Your task to perform on an android device: Go to Reddit.com Image 0: 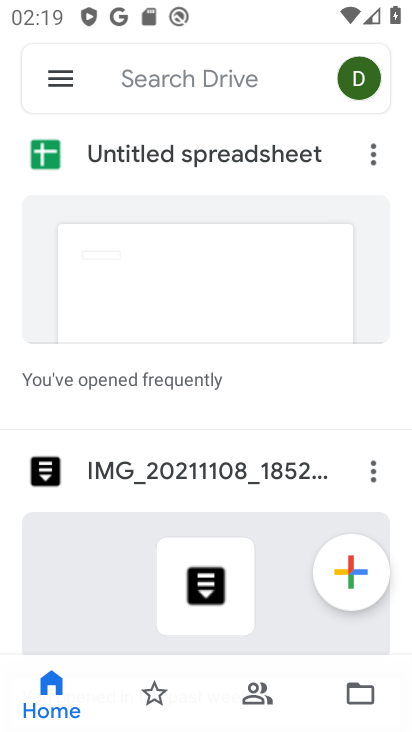
Step 0: press home button
Your task to perform on an android device: Go to Reddit.com Image 1: 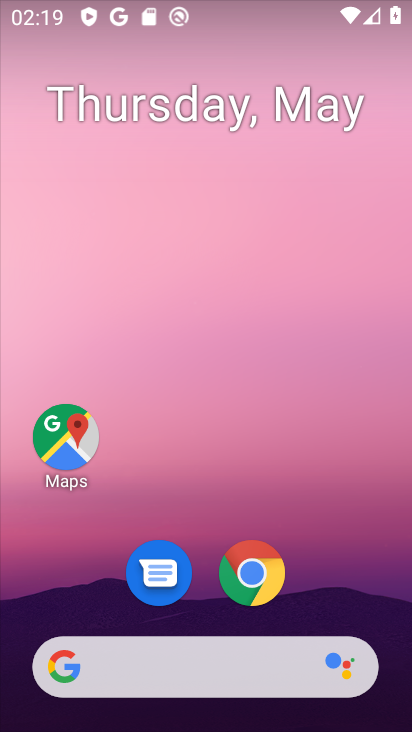
Step 1: drag from (317, 561) to (343, 244)
Your task to perform on an android device: Go to Reddit.com Image 2: 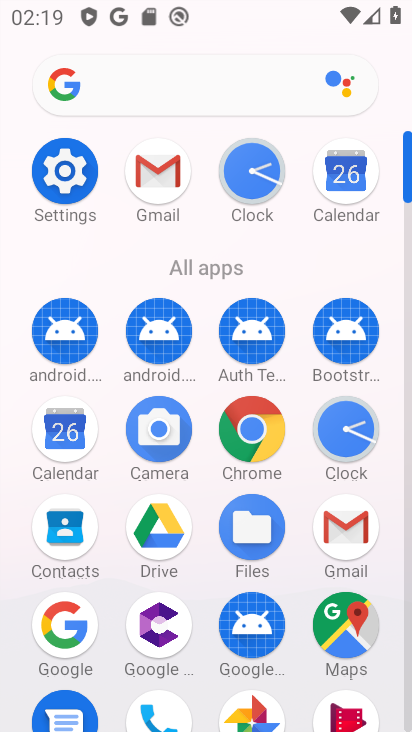
Step 2: click (242, 475)
Your task to perform on an android device: Go to Reddit.com Image 3: 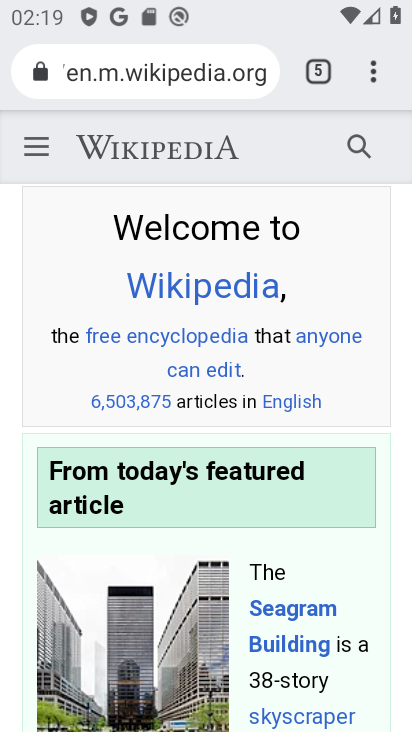
Step 3: click (310, 68)
Your task to perform on an android device: Go to Reddit.com Image 4: 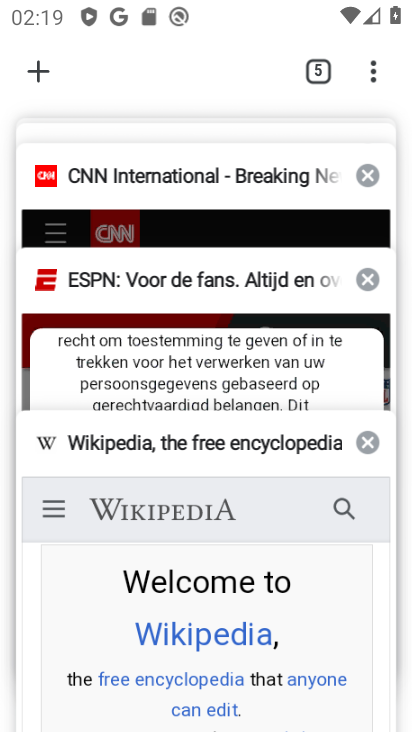
Step 4: drag from (191, 182) to (145, 594)
Your task to perform on an android device: Go to Reddit.com Image 5: 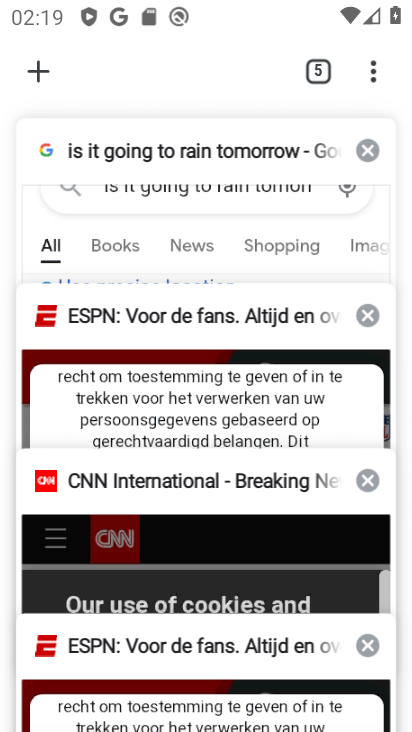
Step 5: drag from (176, 163) to (150, 625)
Your task to perform on an android device: Go to Reddit.com Image 6: 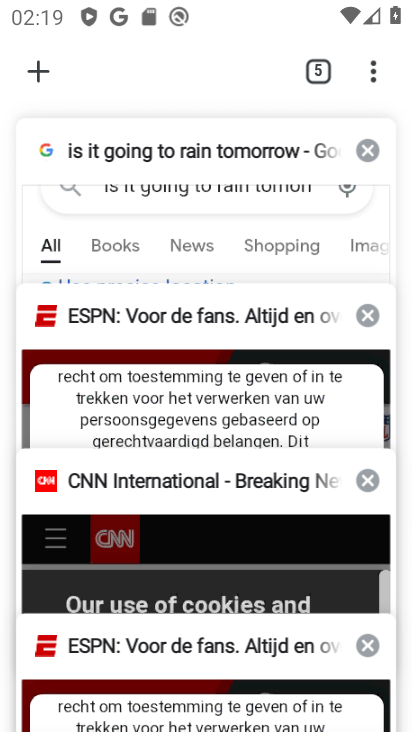
Step 6: drag from (158, 140) to (138, 540)
Your task to perform on an android device: Go to Reddit.com Image 7: 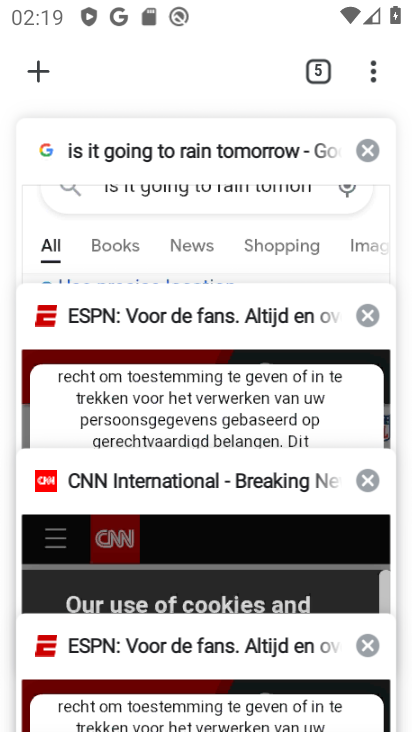
Step 7: click (44, 65)
Your task to perform on an android device: Go to Reddit.com Image 8: 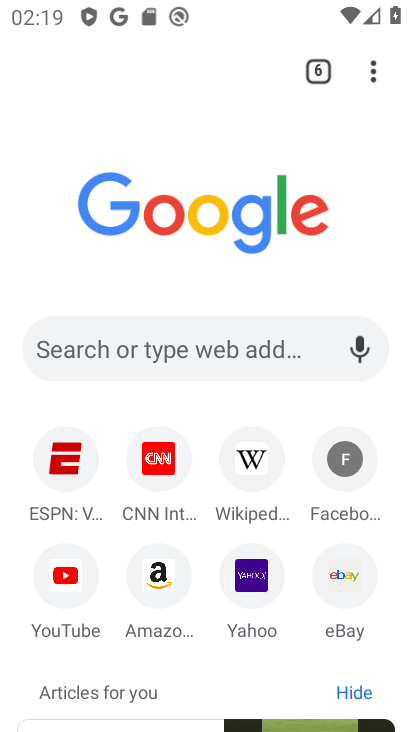
Step 8: click (249, 328)
Your task to perform on an android device: Go to Reddit.com Image 9: 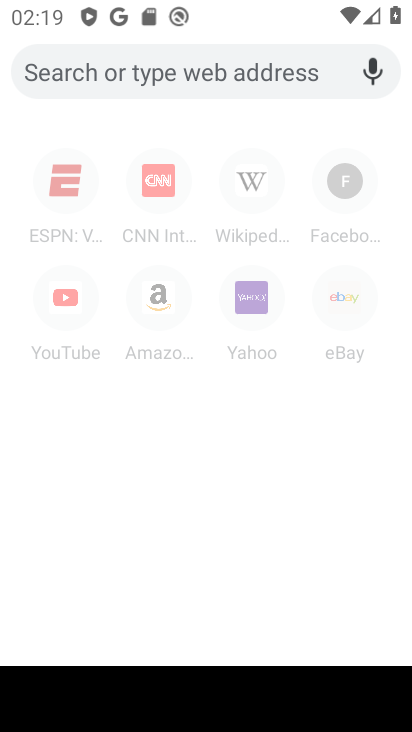
Step 9: type "Reddit.com"
Your task to perform on an android device: Go to Reddit.com Image 10: 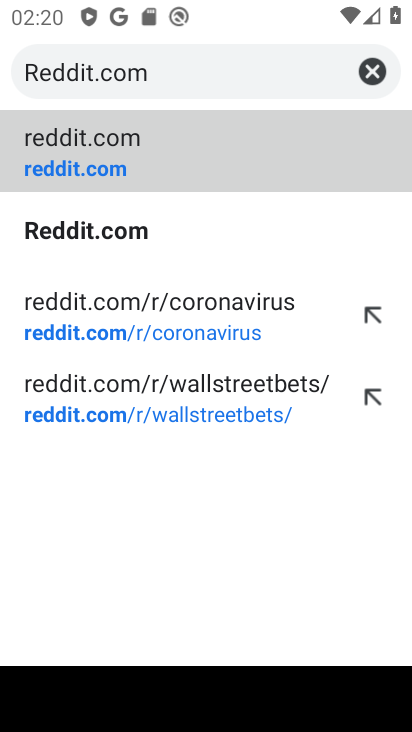
Step 10: click (154, 152)
Your task to perform on an android device: Go to Reddit.com Image 11: 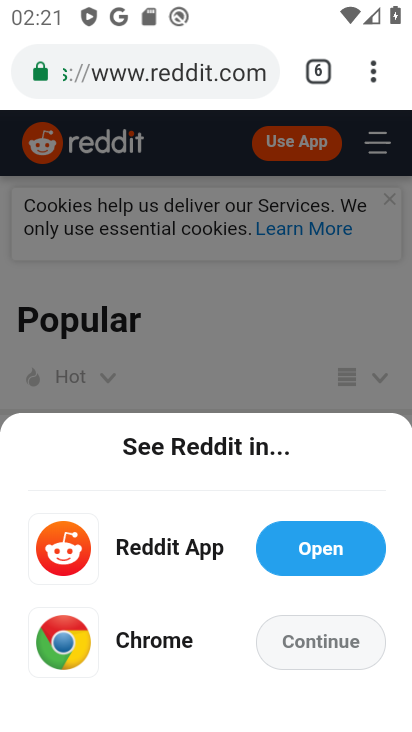
Step 11: task complete